Your task to perform on an android device: add a contact in the contacts app Image 0: 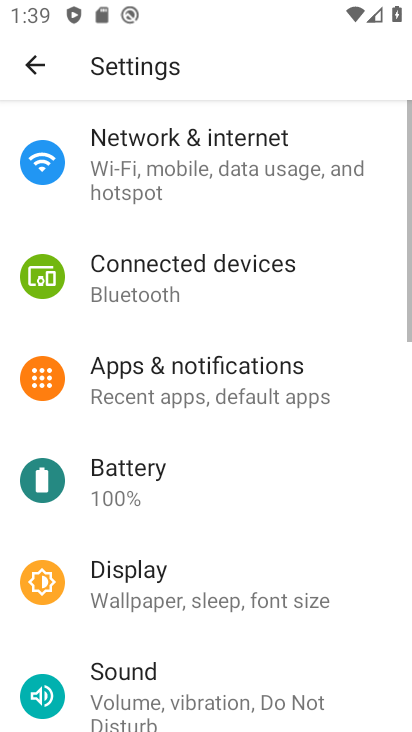
Step 0: press home button
Your task to perform on an android device: add a contact in the contacts app Image 1: 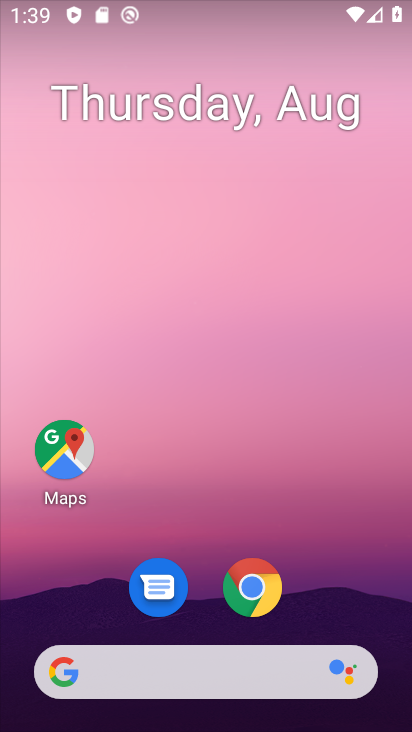
Step 1: drag from (214, 536) to (137, 66)
Your task to perform on an android device: add a contact in the contacts app Image 2: 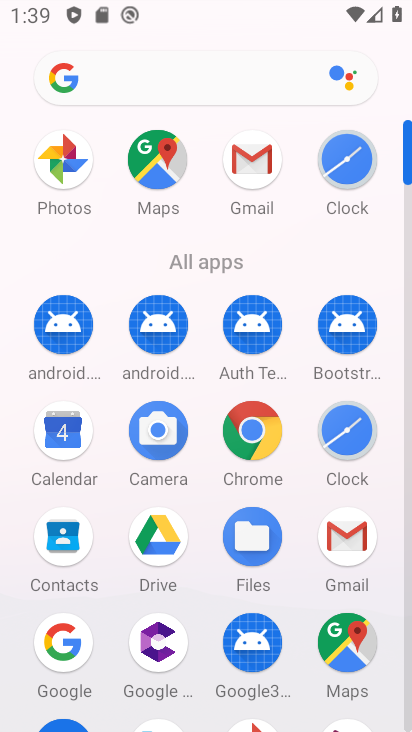
Step 2: click (64, 536)
Your task to perform on an android device: add a contact in the contacts app Image 3: 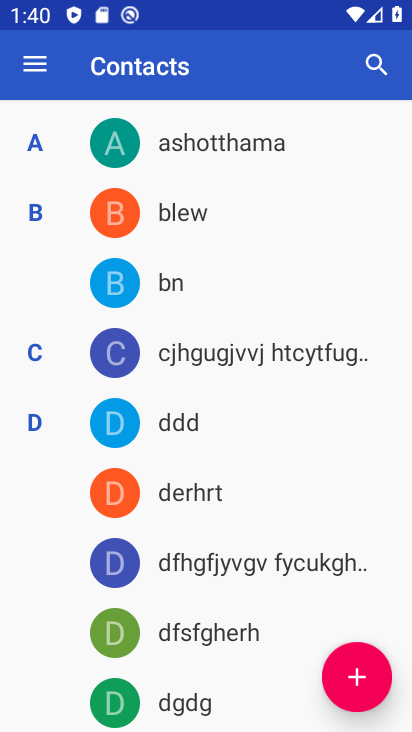
Step 3: click (357, 678)
Your task to perform on an android device: add a contact in the contacts app Image 4: 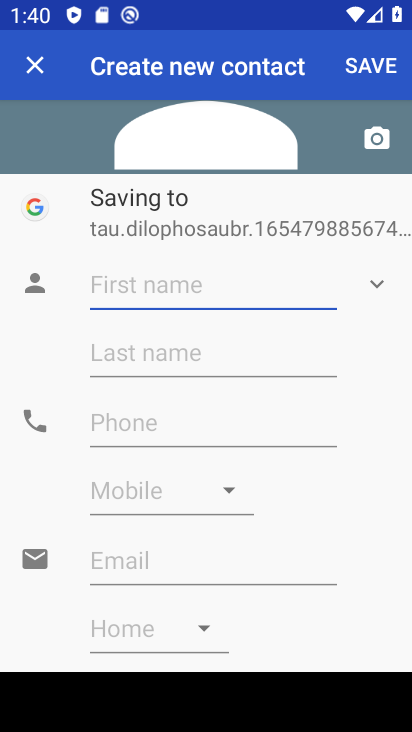
Step 4: click (207, 298)
Your task to perform on an android device: add a contact in the contacts app Image 5: 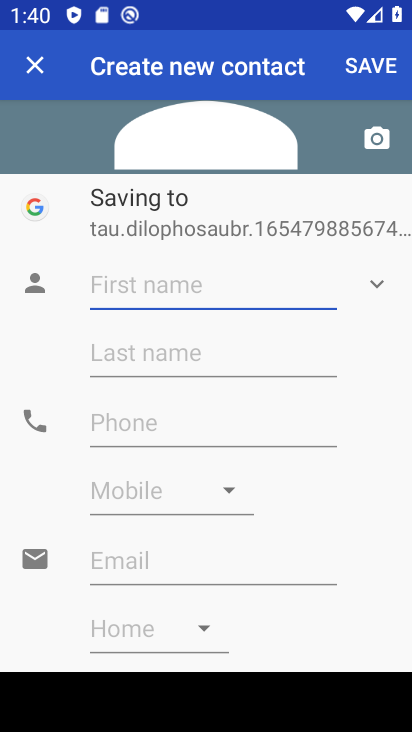
Step 5: type "gggg"
Your task to perform on an android device: add a contact in the contacts app Image 6: 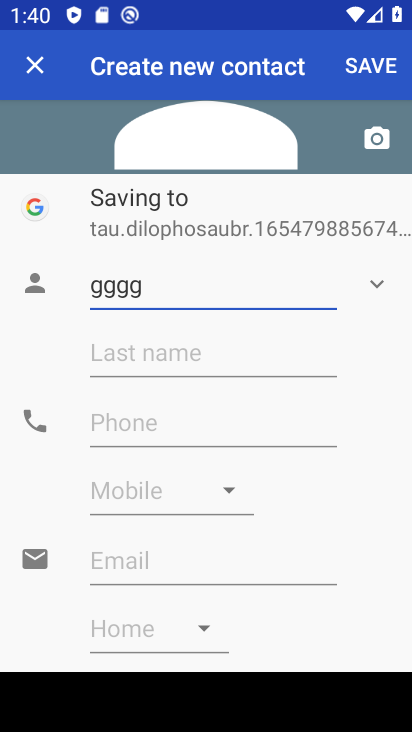
Step 6: click (210, 419)
Your task to perform on an android device: add a contact in the contacts app Image 7: 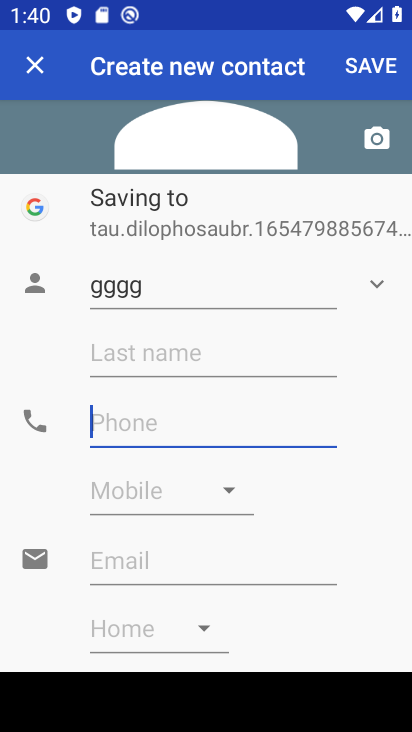
Step 7: type "90909"
Your task to perform on an android device: add a contact in the contacts app Image 8: 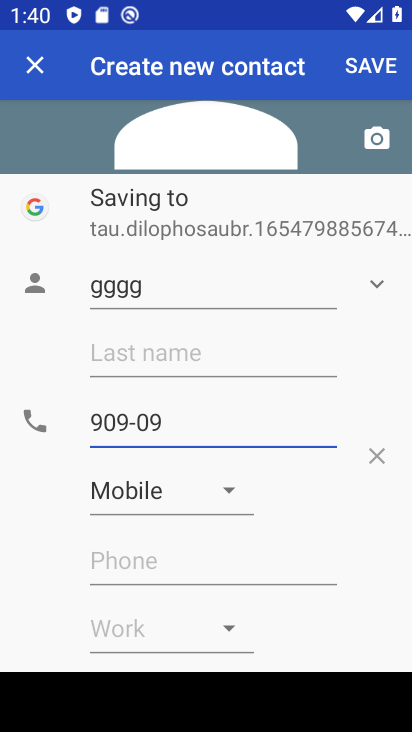
Step 8: click (368, 58)
Your task to perform on an android device: add a contact in the contacts app Image 9: 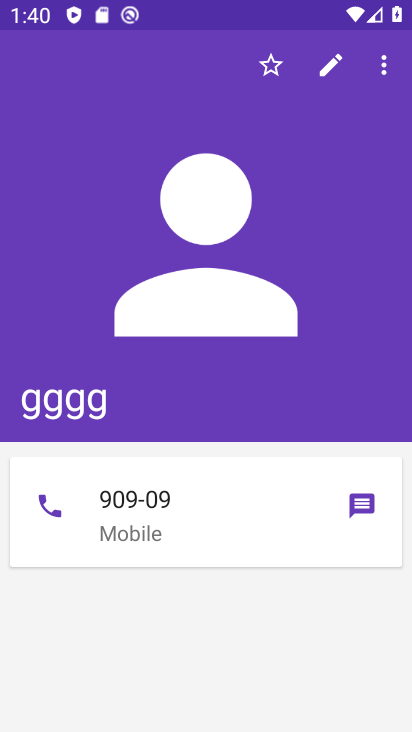
Step 9: task complete